Your task to perform on an android device: create a new album in the google photos Image 0: 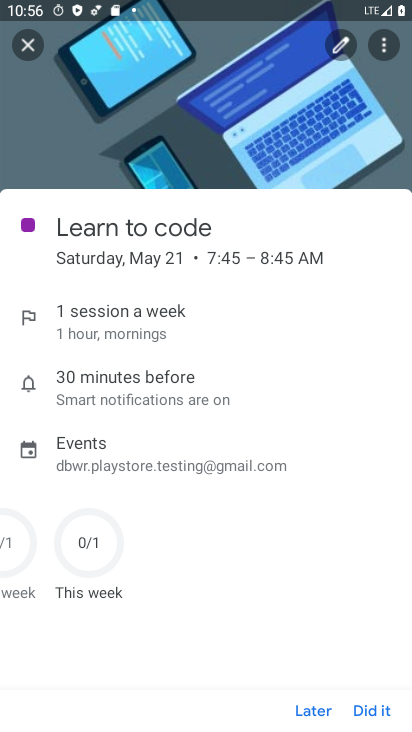
Step 0: press home button
Your task to perform on an android device: create a new album in the google photos Image 1: 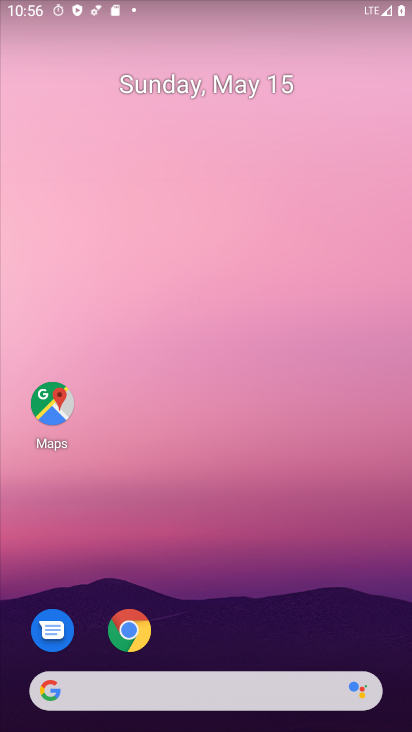
Step 1: drag from (219, 545) to (271, 67)
Your task to perform on an android device: create a new album in the google photos Image 2: 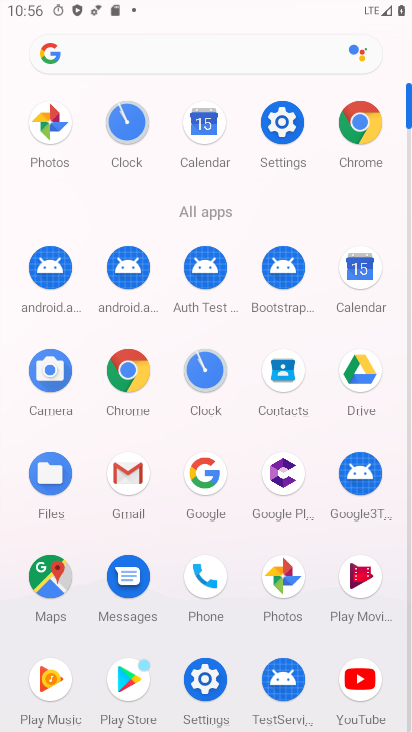
Step 2: click (274, 582)
Your task to perform on an android device: create a new album in the google photos Image 3: 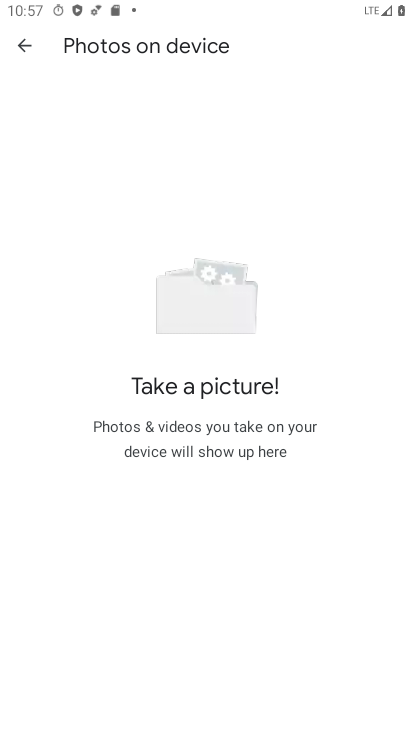
Step 3: press back button
Your task to perform on an android device: create a new album in the google photos Image 4: 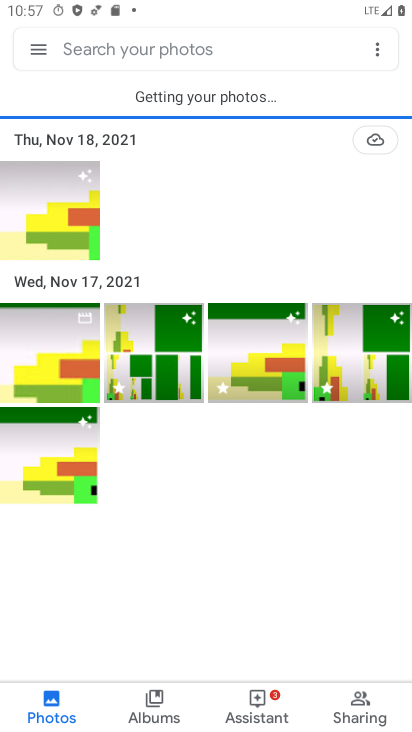
Step 4: press back button
Your task to perform on an android device: create a new album in the google photos Image 5: 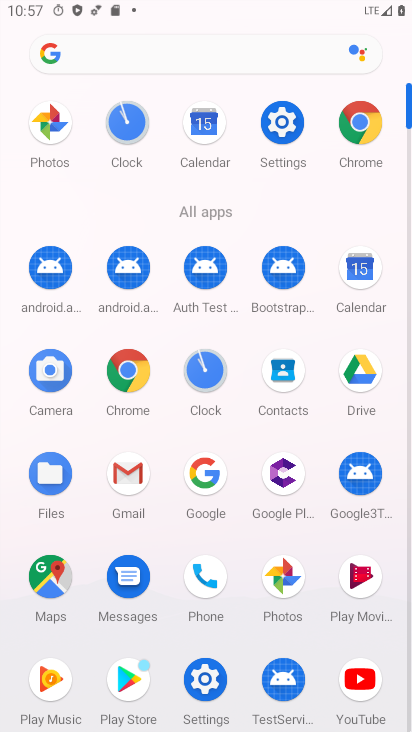
Step 5: click (281, 579)
Your task to perform on an android device: create a new album in the google photos Image 6: 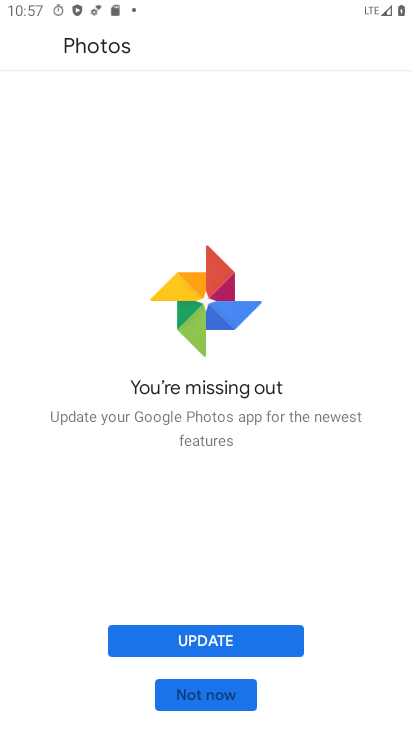
Step 6: click (218, 701)
Your task to perform on an android device: create a new album in the google photos Image 7: 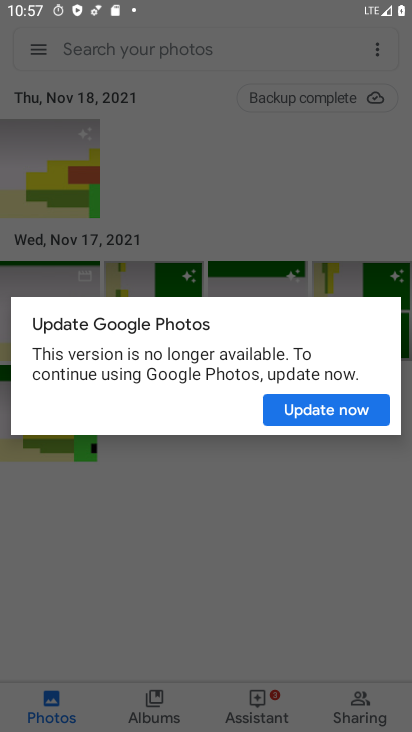
Step 7: click (295, 399)
Your task to perform on an android device: create a new album in the google photos Image 8: 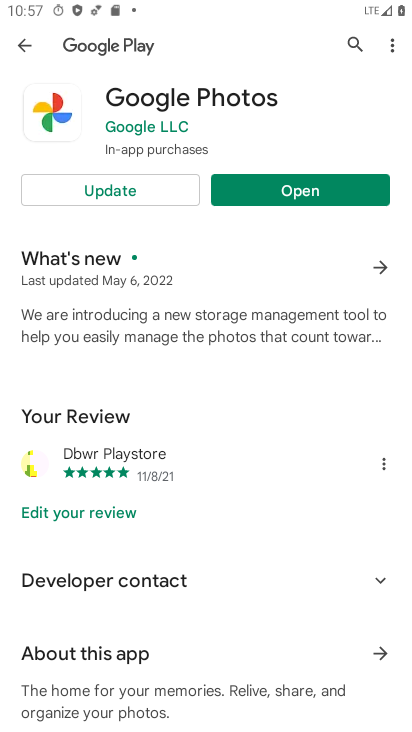
Step 8: click (275, 191)
Your task to perform on an android device: create a new album in the google photos Image 9: 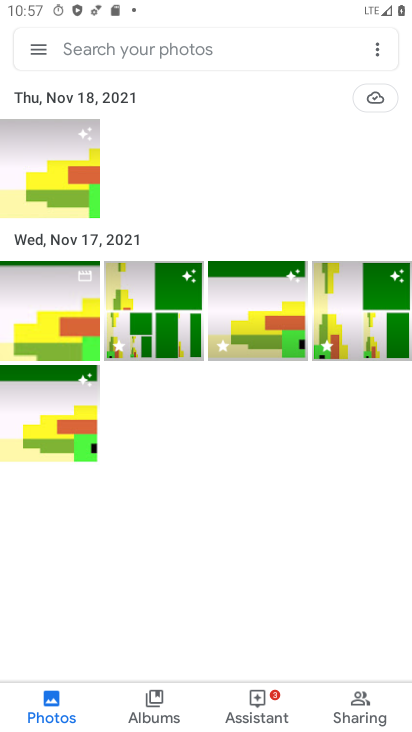
Step 9: click (384, 50)
Your task to perform on an android device: create a new album in the google photos Image 10: 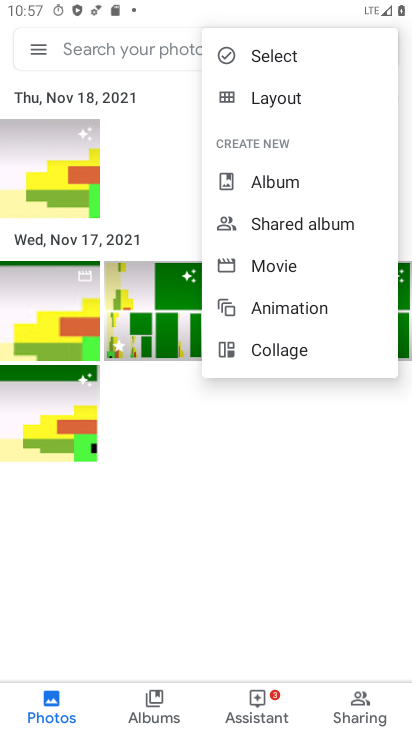
Step 10: click (300, 177)
Your task to perform on an android device: create a new album in the google photos Image 11: 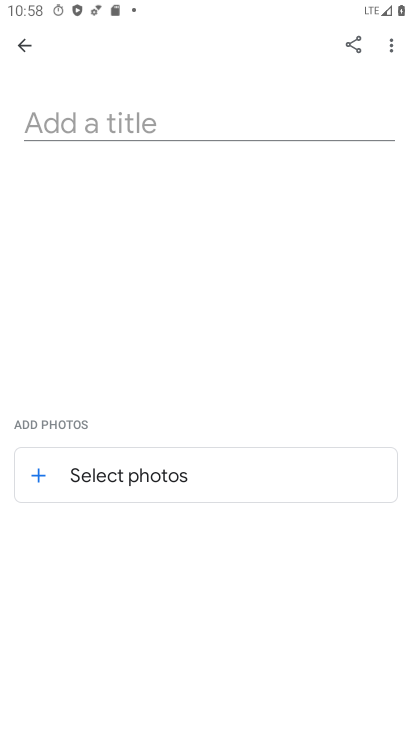
Step 11: click (126, 116)
Your task to perform on an android device: create a new album in the google photos Image 12: 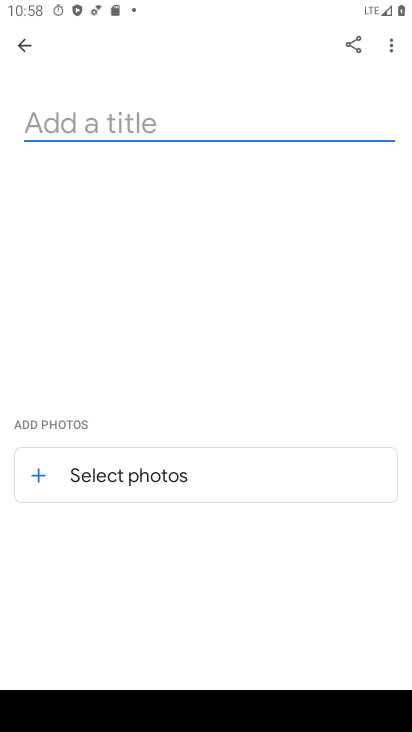
Step 12: type "hvhv"
Your task to perform on an android device: create a new album in the google photos Image 13: 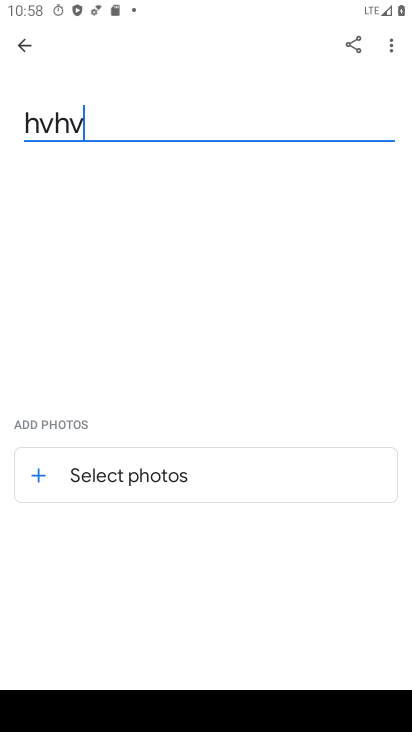
Step 13: click (97, 464)
Your task to perform on an android device: create a new album in the google photos Image 14: 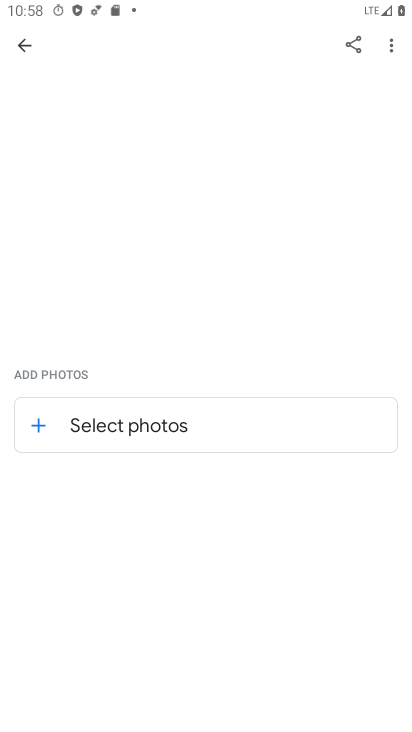
Step 14: click (108, 419)
Your task to perform on an android device: create a new album in the google photos Image 15: 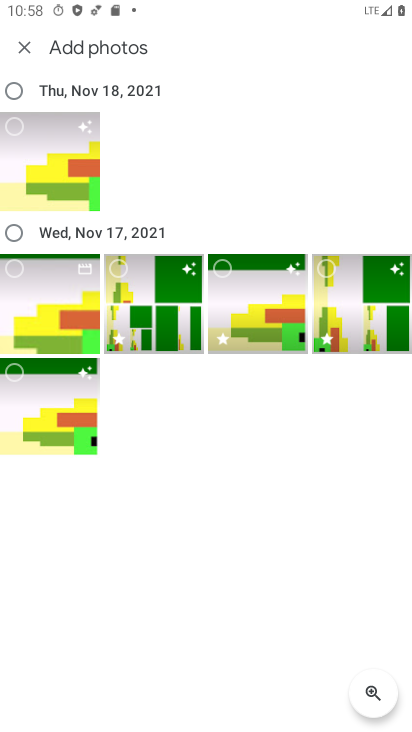
Step 15: click (11, 75)
Your task to perform on an android device: create a new album in the google photos Image 16: 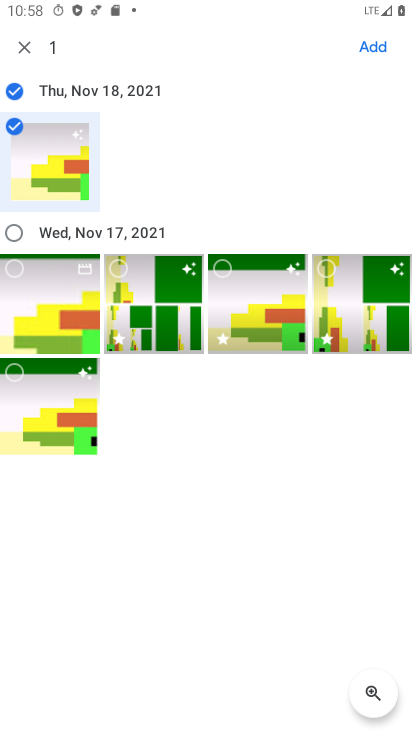
Step 16: click (367, 45)
Your task to perform on an android device: create a new album in the google photos Image 17: 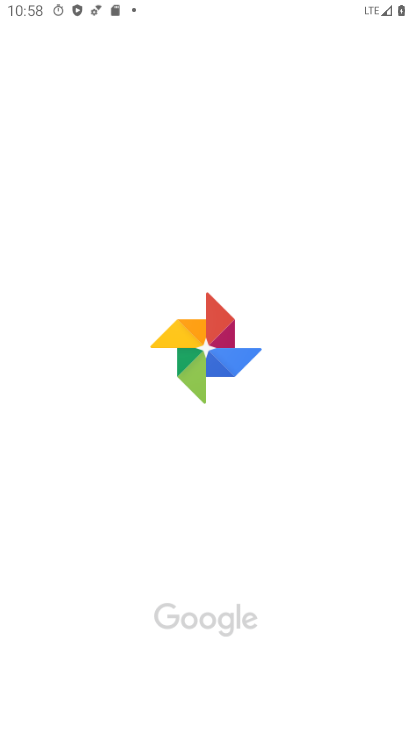
Step 17: task complete